Your task to perform on an android device: Search for seafood restaurants on Google Maps Image 0: 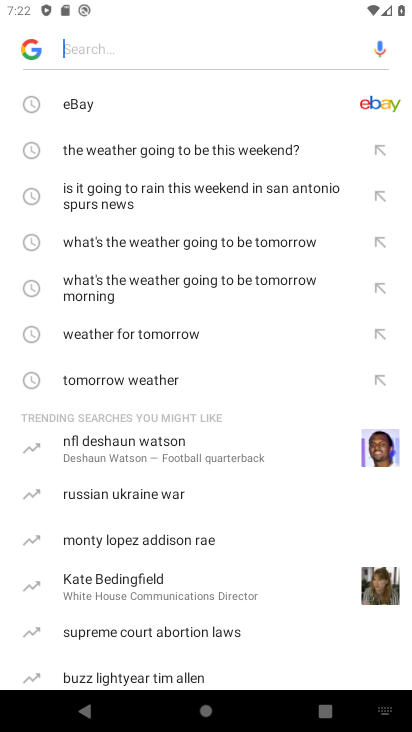
Step 0: press home button
Your task to perform on an android device: Search for seafood restaurants on Google Maps Image 1: 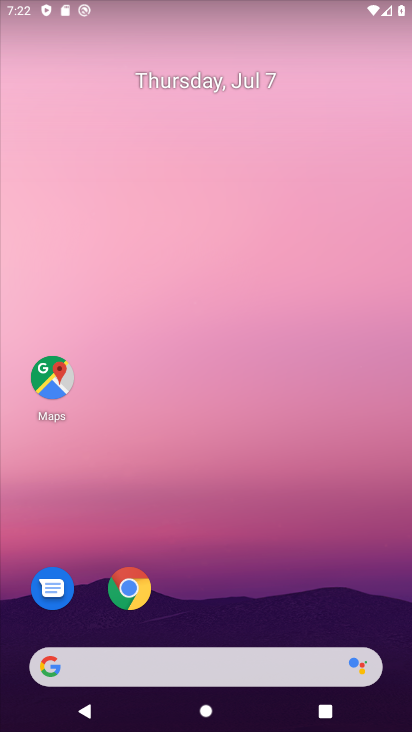
Step 1: click (47, 372)
Your task to perform on an android device: Search for seafood restaurants on Google Maps Image 2: 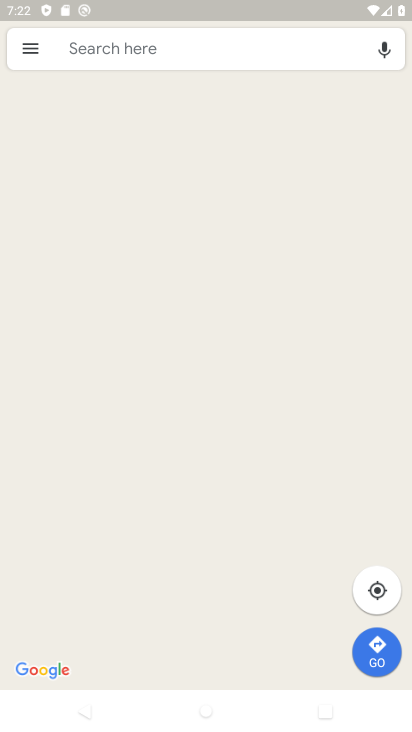
Step 2: click (242, 63)
Your task to perform on an android device: Search for seafood restaurants on Google Maps Image 3: 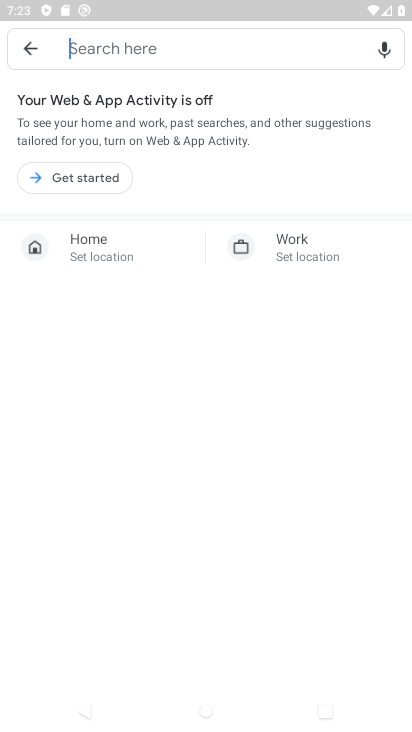
Step 3: click (123, 40)
Your task to perform on an android device: Search for seafood restaurants on Google Maps Image 4: 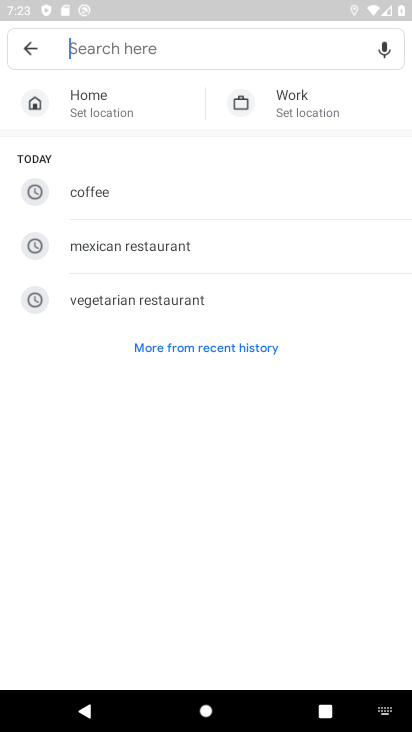
Step 4: type "seafood restaurant"
Your task to perform on an android device: Search for seafood restaurants on Google Maps Image 5: 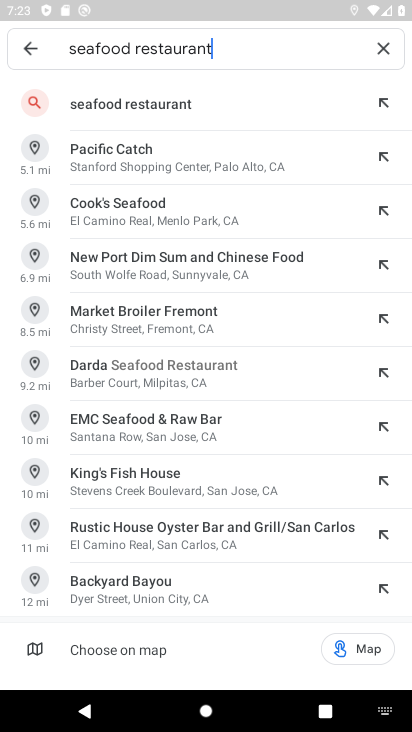
Step 5: click (173, 118)
Your task to perform on an android device: Search for seafood restaurants on Google Maps Image 6: 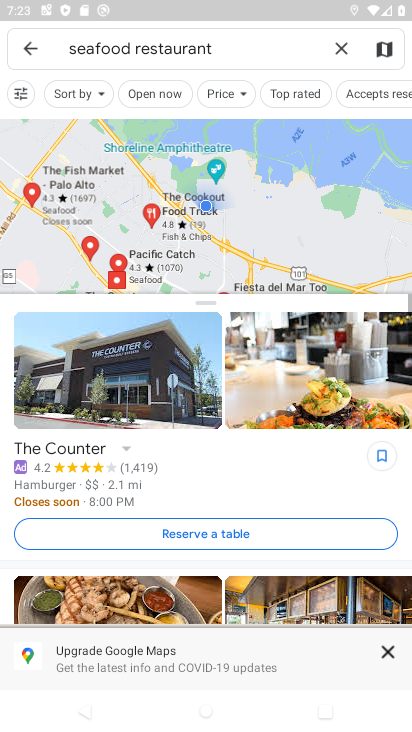
Step 6: task complete